Your task to perform on an android device: check out phone information Image 0: 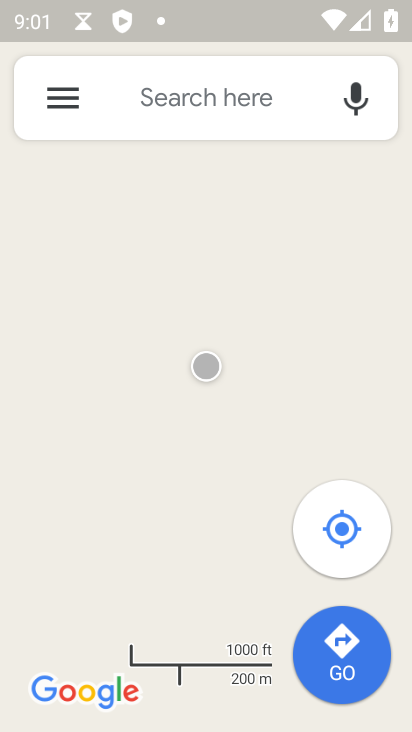
Step 0: press back button
Your task to perform on an android device: check out phone information Image 1: 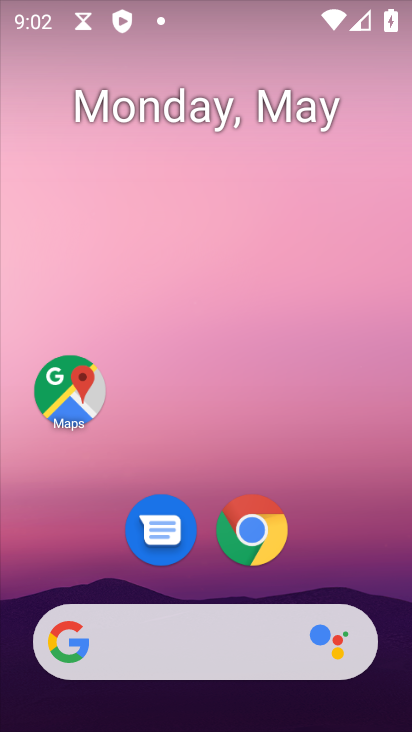
Step 1: drag from (320, 517) to (13, 158)
Your task to perform on an android device: check out phone information Image 2: 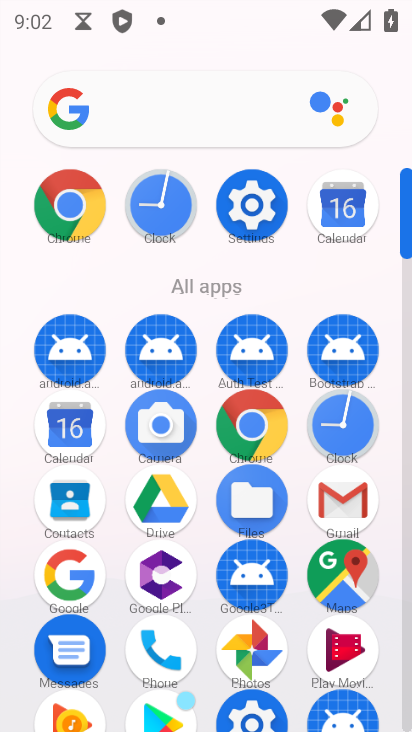
Step 2: click (249, 202)
Your task to perform on an android device: check out phone information Image 3: 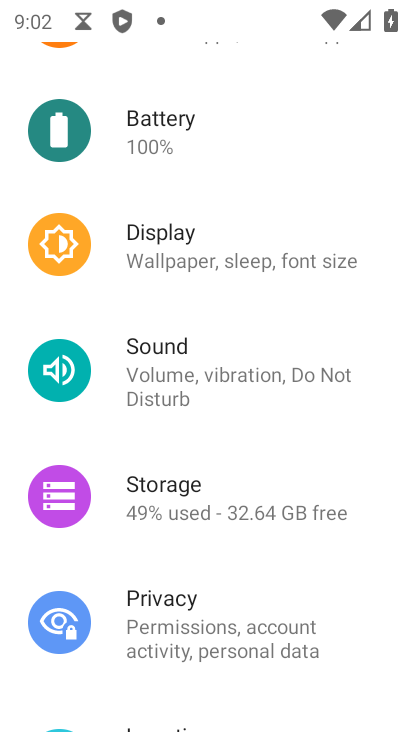
Step 3: drag from (334, 606) to (274, 126)
Your task to perform on an android device: check out phone information Image 4: 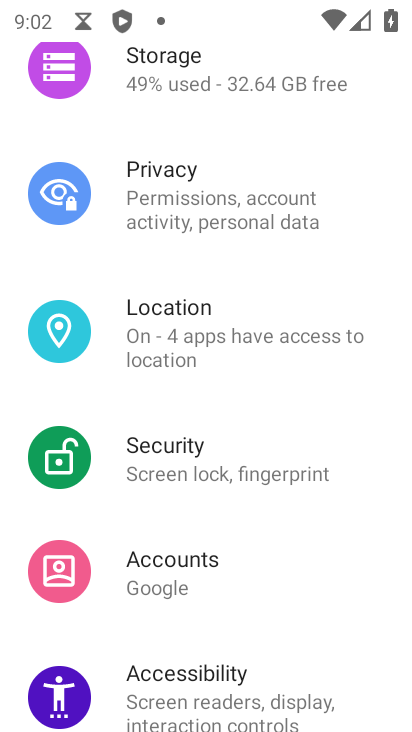
Step 4: drag from (267, 564) to (270, 141)
Your task to perform on an android device: check out phone information Image 5: 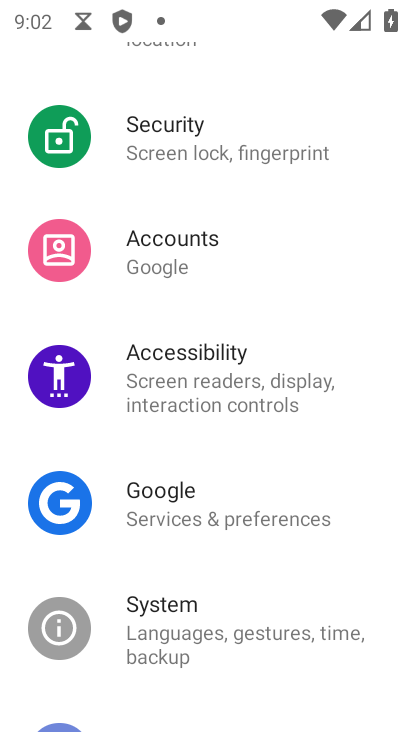
Step 5: drag from (272, 593) to (297, 109)
Your task to perform on an android device: check out phone information Image 6: 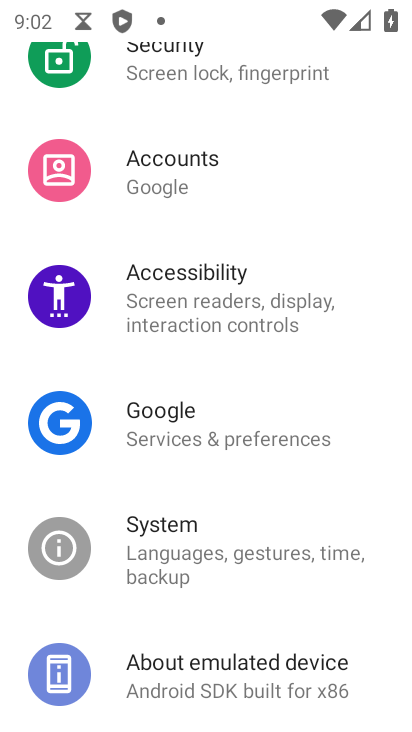
Step 6: drag from (258, 644) to (239, 228)
Your task to perform on an android device: check out phone information Image 7: 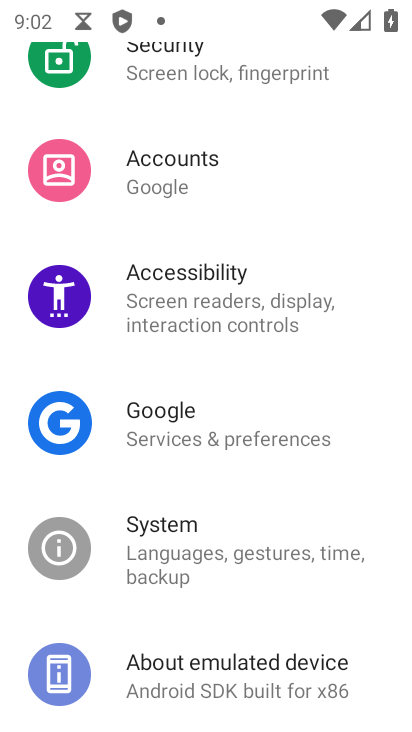
Step 7: click (230, 676)
Your task to perform on an android device: check out phone information Image 8: 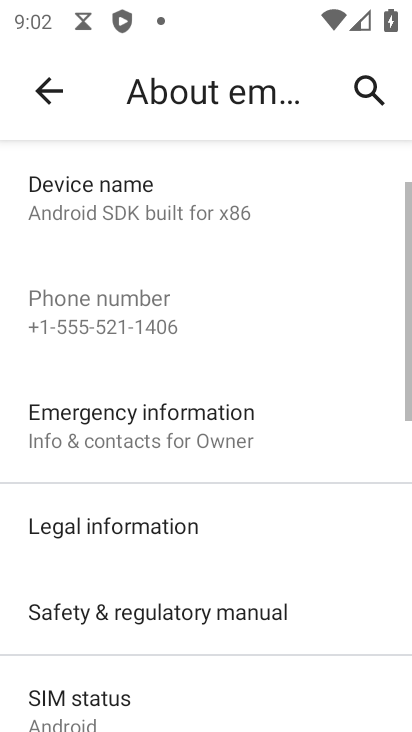
Step 8: task complete